Your task to perform on an android device: Clear all items from cart on target. Search for "razer blade" on target, select the first entry, add it to the cart, then select checkout. Image 0: 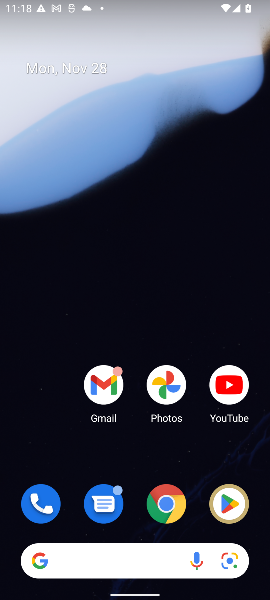
Step 0: click (167, 500)
Your task to perform on an android device: Clear all items from cart on target. Search for "razer blade" on target, select the first entry, add it to the cart, then select checkout. Image 1: 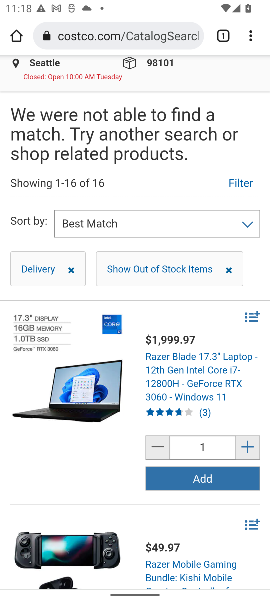
Step 1: click (120, 33)
Your task to perform on an android device: Clear all items from cart on target. Search for "razer blade" on target, select the first entry, add it to the cart, then select checkout. Image 2: 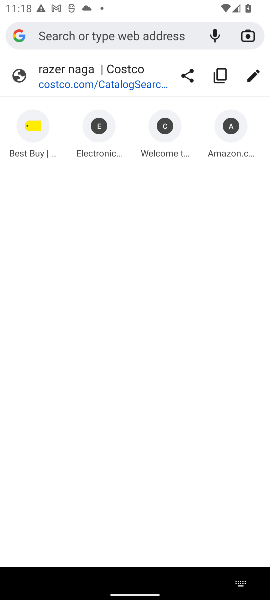
Step 2: type "target.com"
Your task to perform on an android device: Clear all items from cart on target. Search for "razer blade" on target, select the first entry, add it to the cart, then select checkout. Image 3: 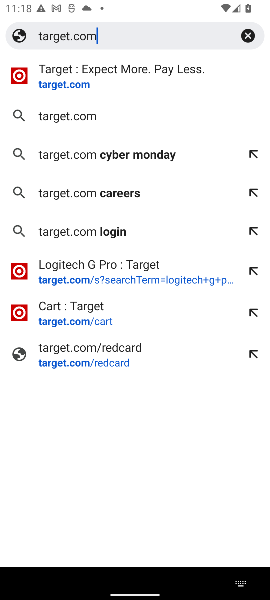
Step 3: click (48, 91)
Your task to perform on an android device: Clear all items from cart on target. Search for "razer blade" on target, select the first entry, add it to the cart, then select checkout. Image 4: 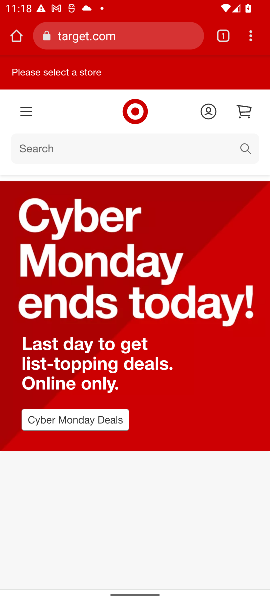
Step 4: click (243, 112)
Your task to perform on an android device: Clear all items from cart on target. Search for "razer blade" on target, select the first entry, add it to the cart, then select checkout. Image 5: 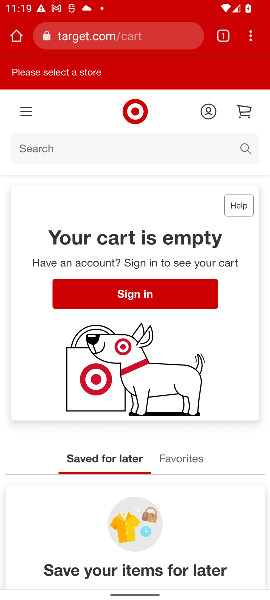
Step 5: click (44, 145)
Your task to perform on an android device: Clear all items from cart on target. Search for "razer blade" on target, select the first entry, add it to the cart, then select checkout. Image 6: 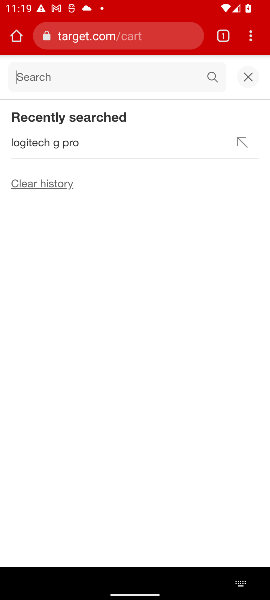
Step 6: type "razer blade"
Your task to perform on an android device: Clear all items from cart on target. Search for "razer blade" on target, select the first entry, add it to the cart, then select checkout. Image 7: 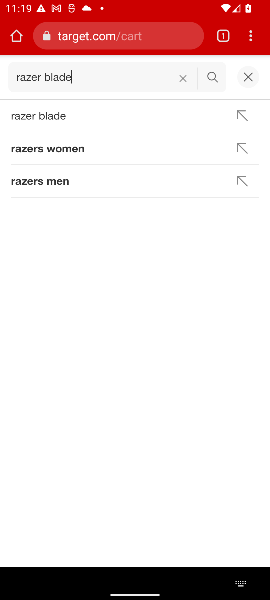
Step 7: click (28, 120)
Your task to perform on an android device: Clear all items from cart on target. Search for "razer blade" on target, select the first entry, add it to the cart, then select checkout. Image 8: 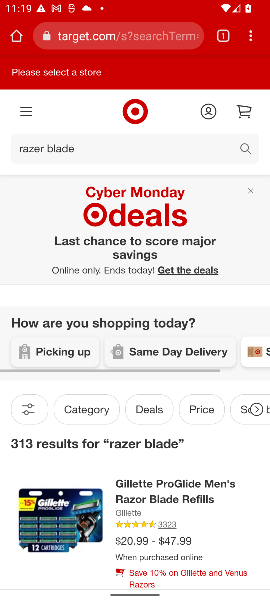
Step 8: task complete